Your task to perform on an android device: turn pop-ups on in chrome Image 0: 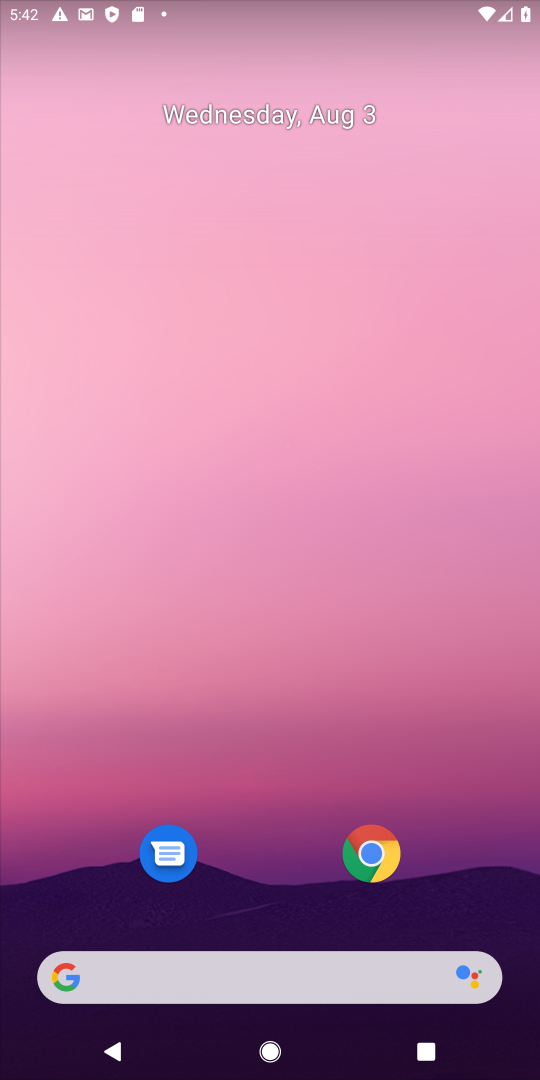
Step 0: click (378, 858)
Your task to perform on an android device: turn pop-ups on in chrome Image 1: 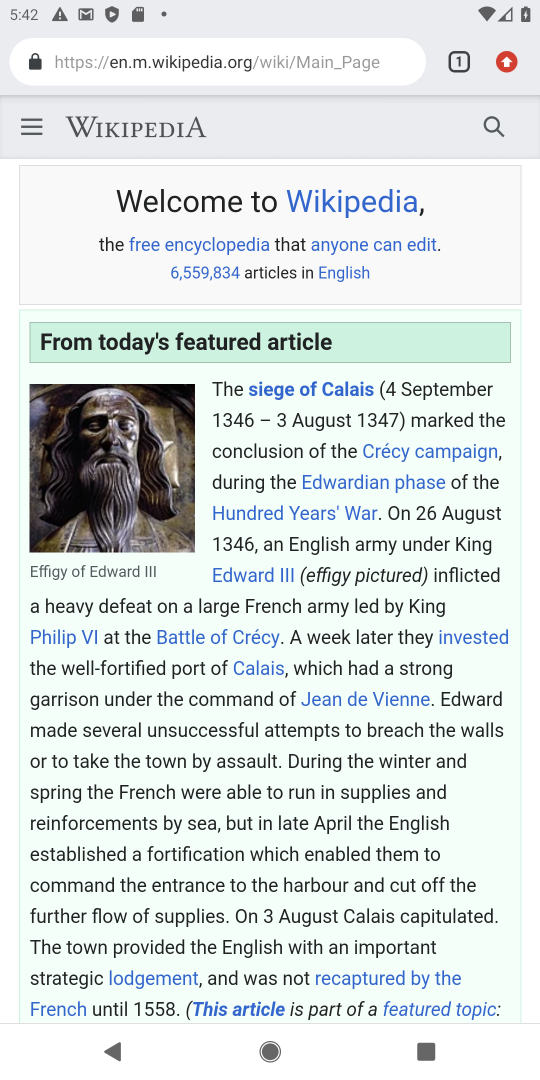
Step 1: click (508, 68)
Your task to perform on an android device: turn pop-ups on in chrome Image 2: 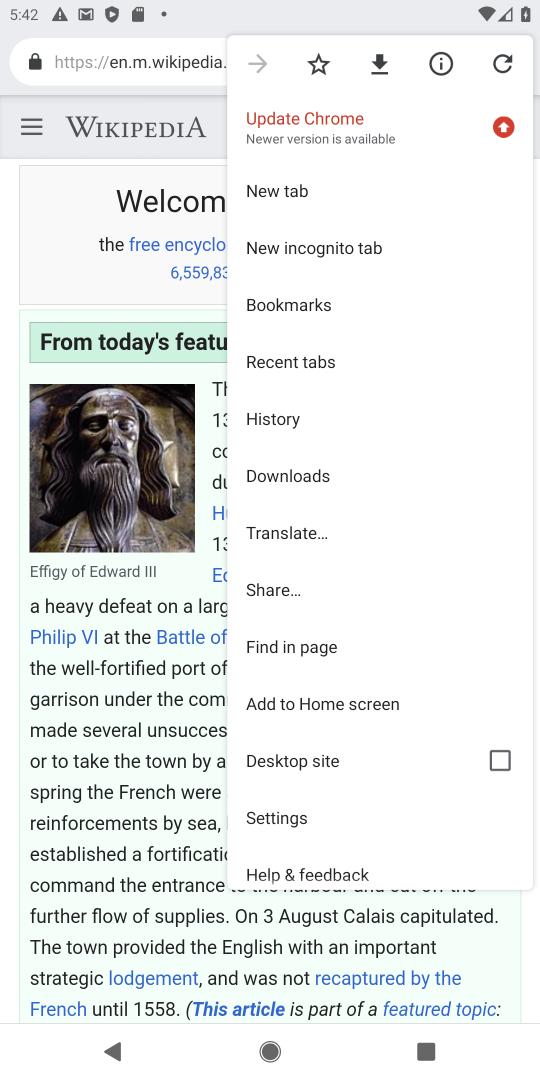
Step 2: click (316, 820)
Your task to perform on an android device: turn pop-ups on in chrome Image 3: 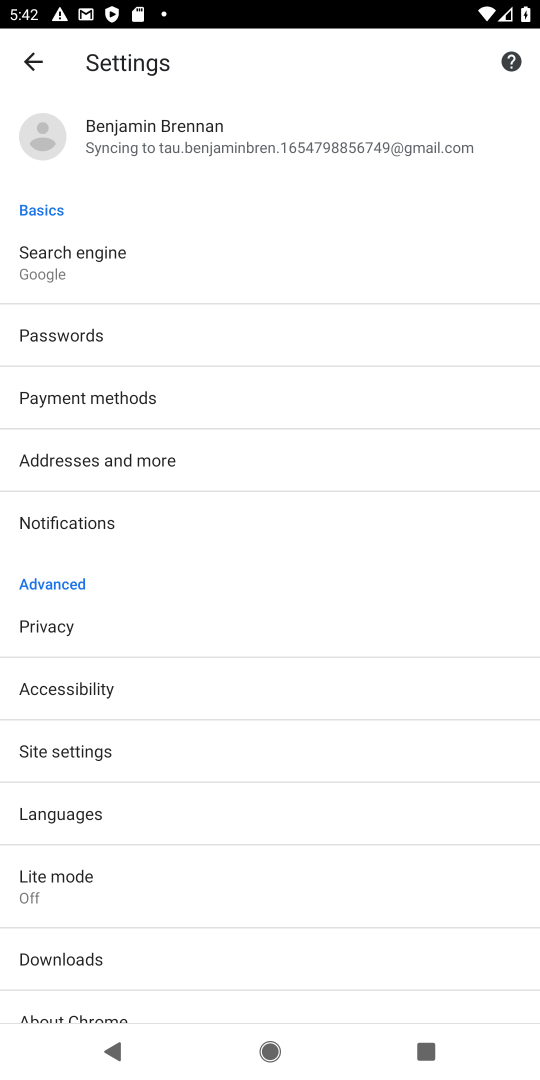
Step 3: drag from (293, 740) to (219, 429)
Your task to perform on an android device: turn pop-ups on in chrome Image 4: 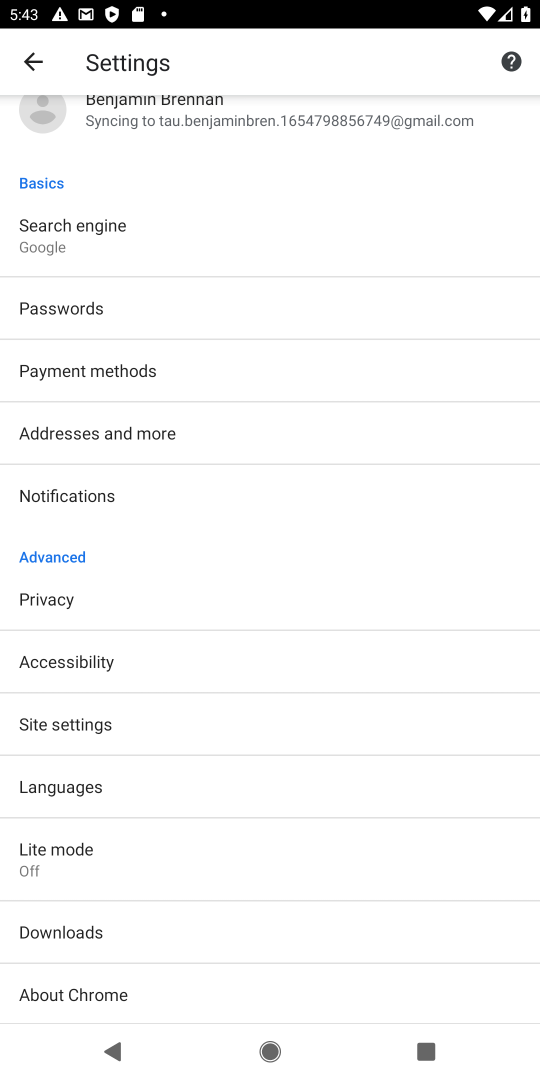
Step 4: click (50, 734)
Your task to perform on an android device: turn pop-ups on in chrome Image 5: 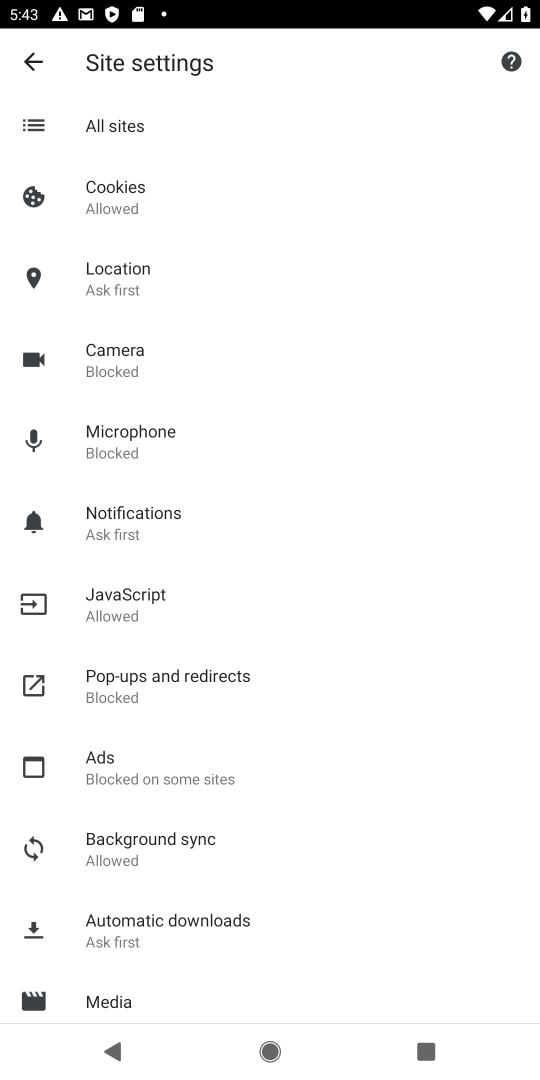
Step 5: click (219, 689)
Your task to perform on an android device: turn pop-ups on in chrome Image 6: 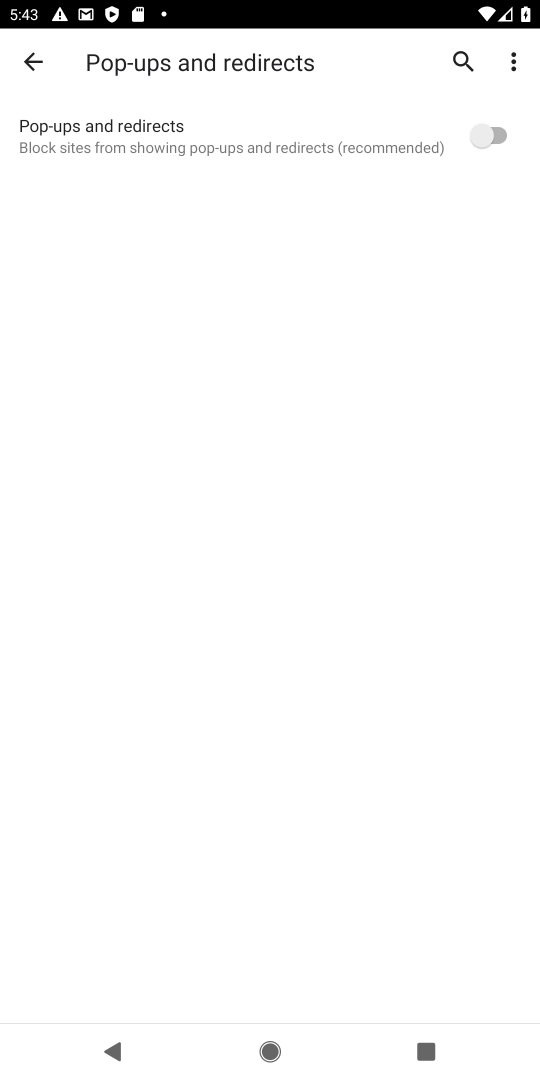
Step 6: click (498, 136)
Your task to perform on an android device: turn pop-ups on in chrome Image 7: 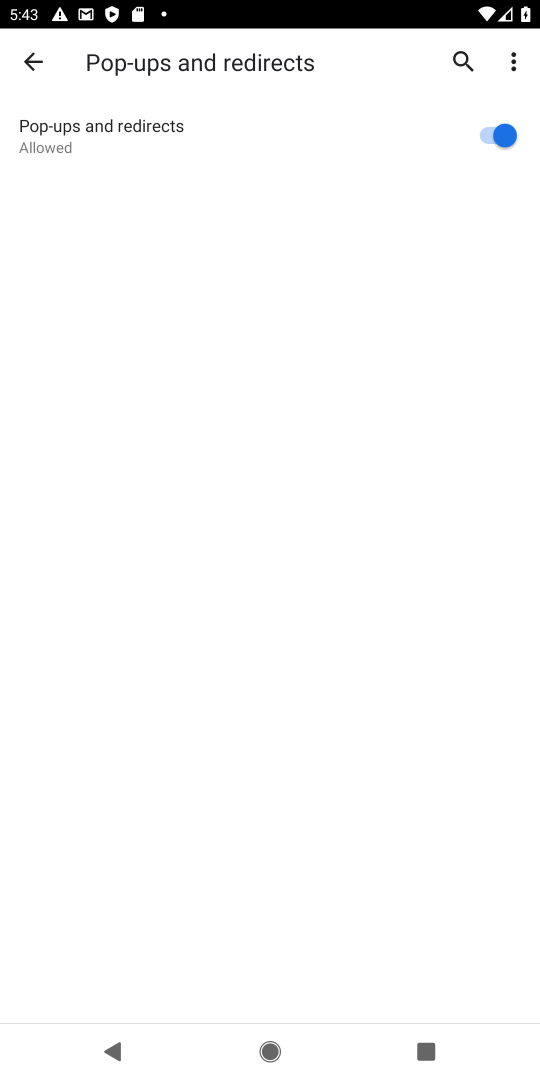
Step 7: task complete